Your task to perform on an android device: check google app version Image 0: 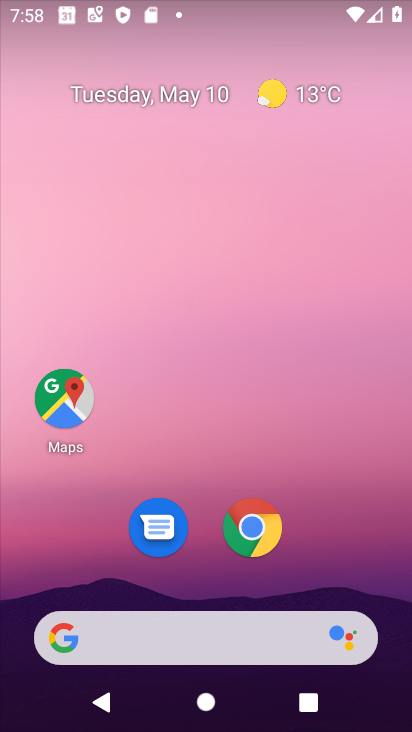
Step 0: drag from (6, 714) to (299, 180)
Your task to perform on an android device: check google app version Image 1: 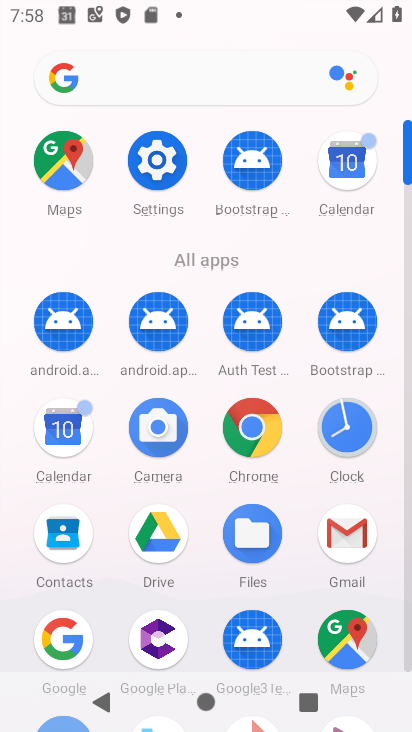
Step 1: click (78, 336)
Your task to perform on an android device: check google app version Image 2: 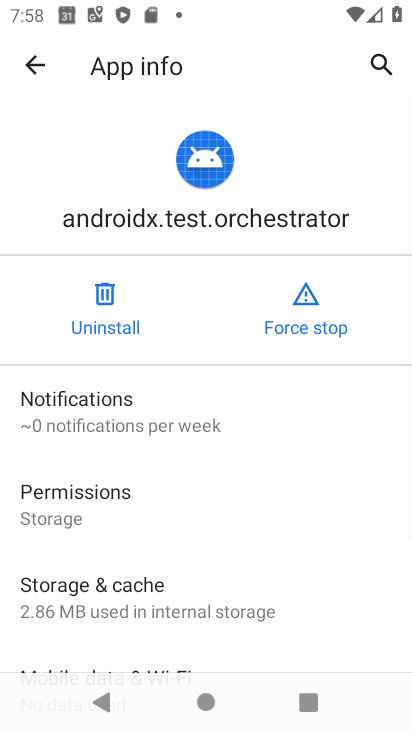
Step 2: drag from (122, 607) to (344, 127)
Your task to perform on an android device: check google app version Image 3: 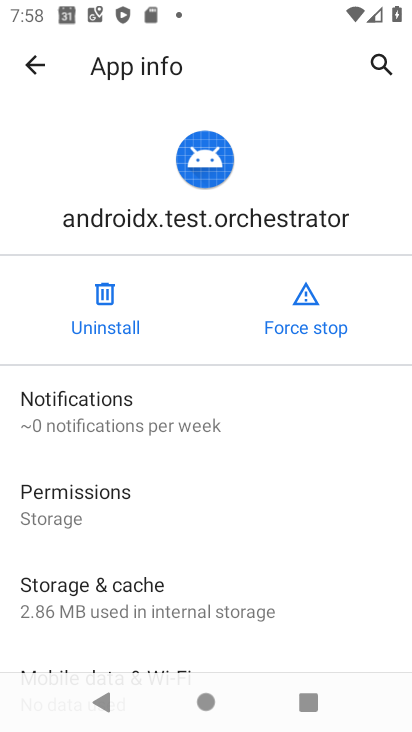
Step 3: drag from (195, 555) to (312, 33)
Your task to perform on an android device: check google app version Image 4: 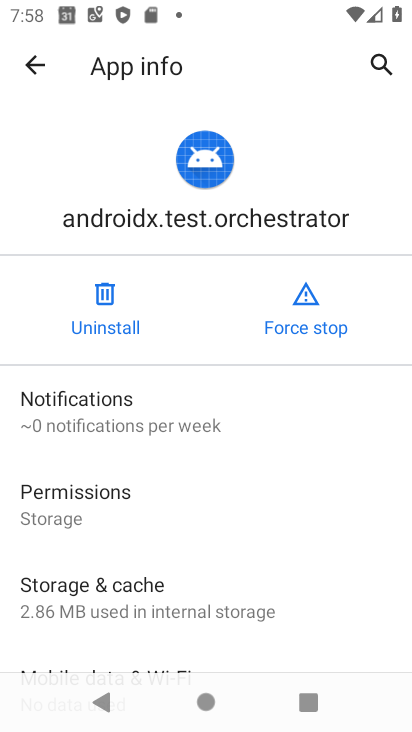
Step 4: drag from (83, 665) to (277, 124)
Your task to perform on an android device: check google app version Image 5: 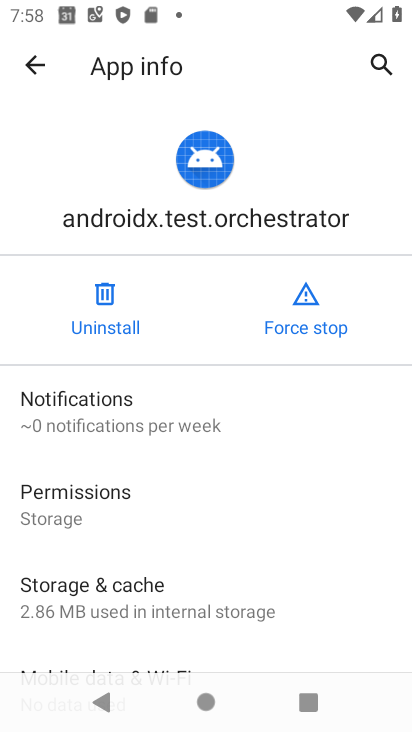
Step 5: drag from (125, 664) to (257, 168)
Your task to perform on an android device: check google app version Image 6: 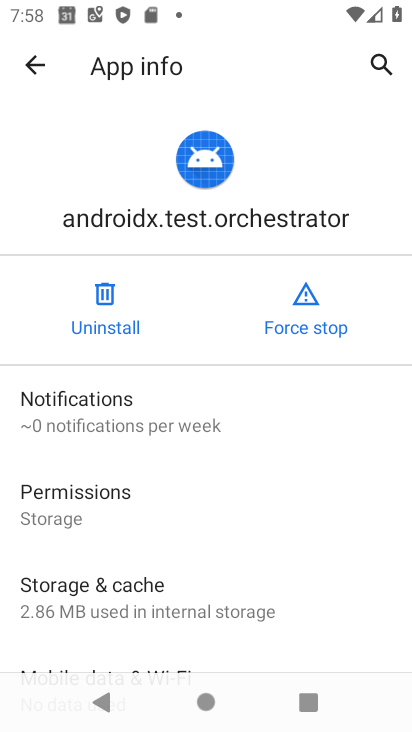
Step 6: drag from (76, 565) to (328, 4)
Your task to perform on an android device: check google app version Image 7: 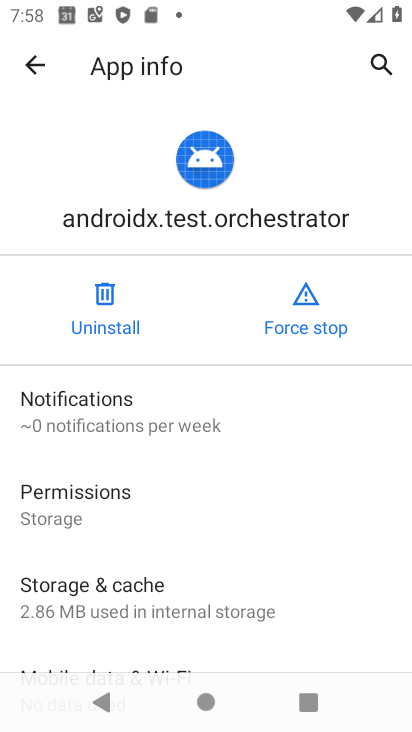
Step 7: drag from (57, 640) to (295, 79)
Your task to perform on an android device: check google app version Image 8: 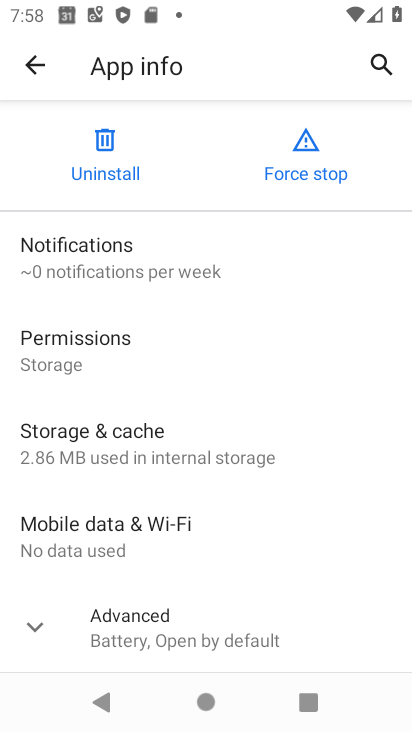
Step 8: click (130, 639)
Your task to perform on an android device: check google app version Image 9: 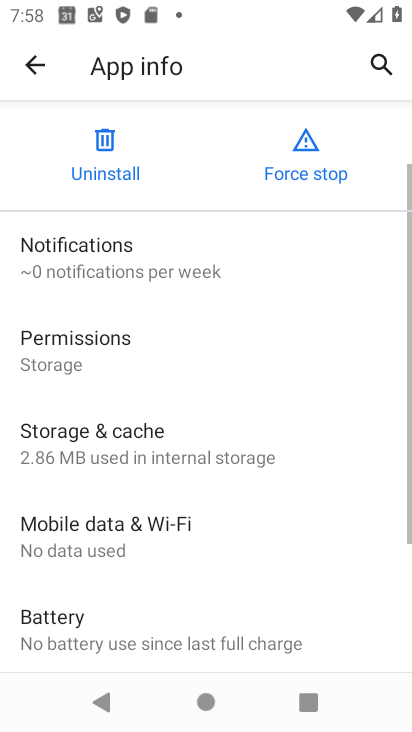
Step 9: task complete